Your task to perform on an android device: create a new album in the google photos Image 0: 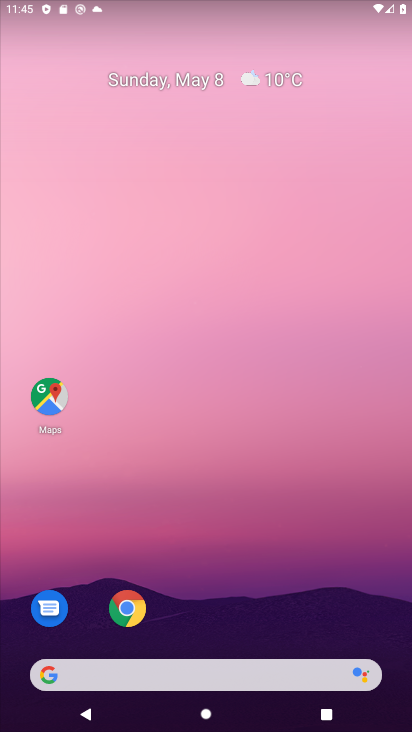
Step 0: drag from (301, 610) to (280, 283)
Your task to perform on an android device: create a new album in the google photos Image 1: 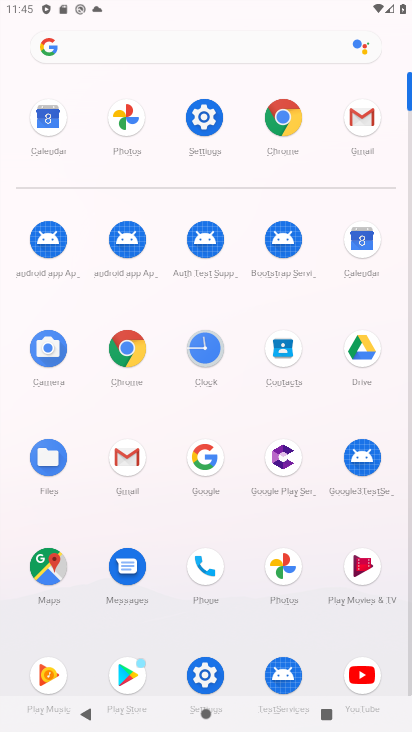
Step 1: click (268, 571)
Your task to perform on an android device: create a new album in the google photos Image 2: 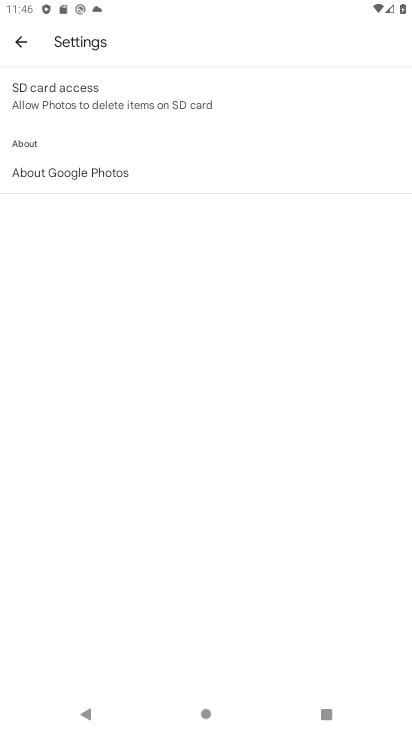
Step 2: task complete